Your task to perform on an android device: Search for flights from NYC to Buenos aires Image 0: 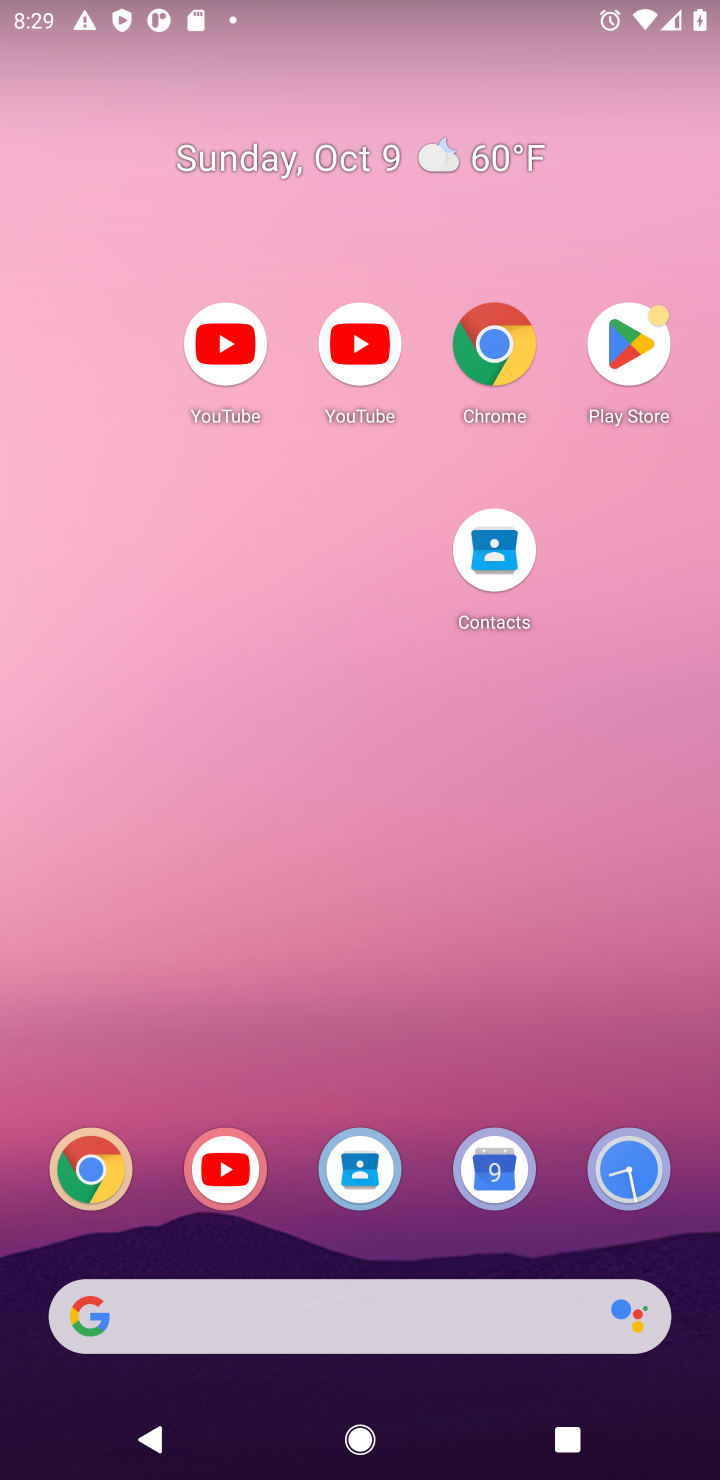
Step 0: drag from (276, 1258) to (297, 280)
Your task to perform on an android device: Search for flights from NYC to Buenos aires Image 1: 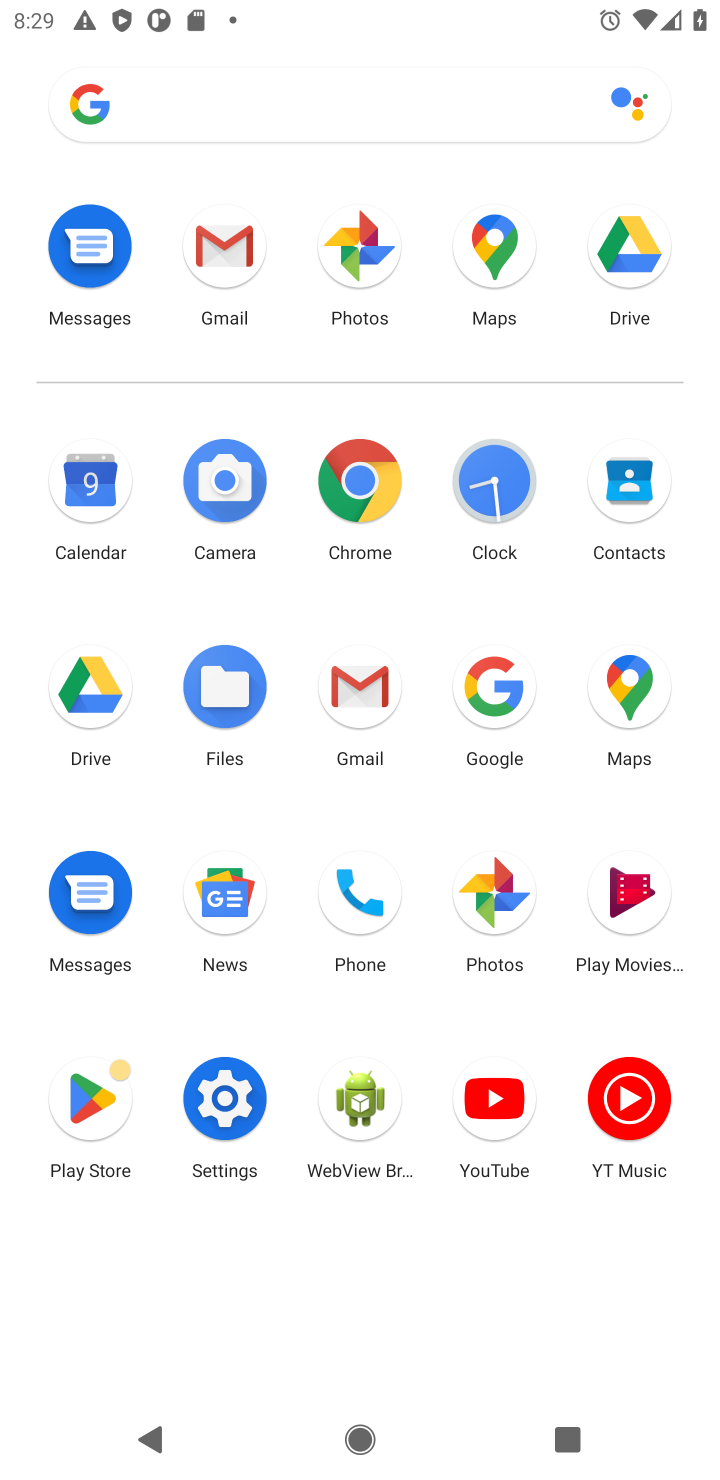
Step 1: click (350, 481)
Your task to perform on an android device: Search for flights from NYC to Buenos aires Image 2: 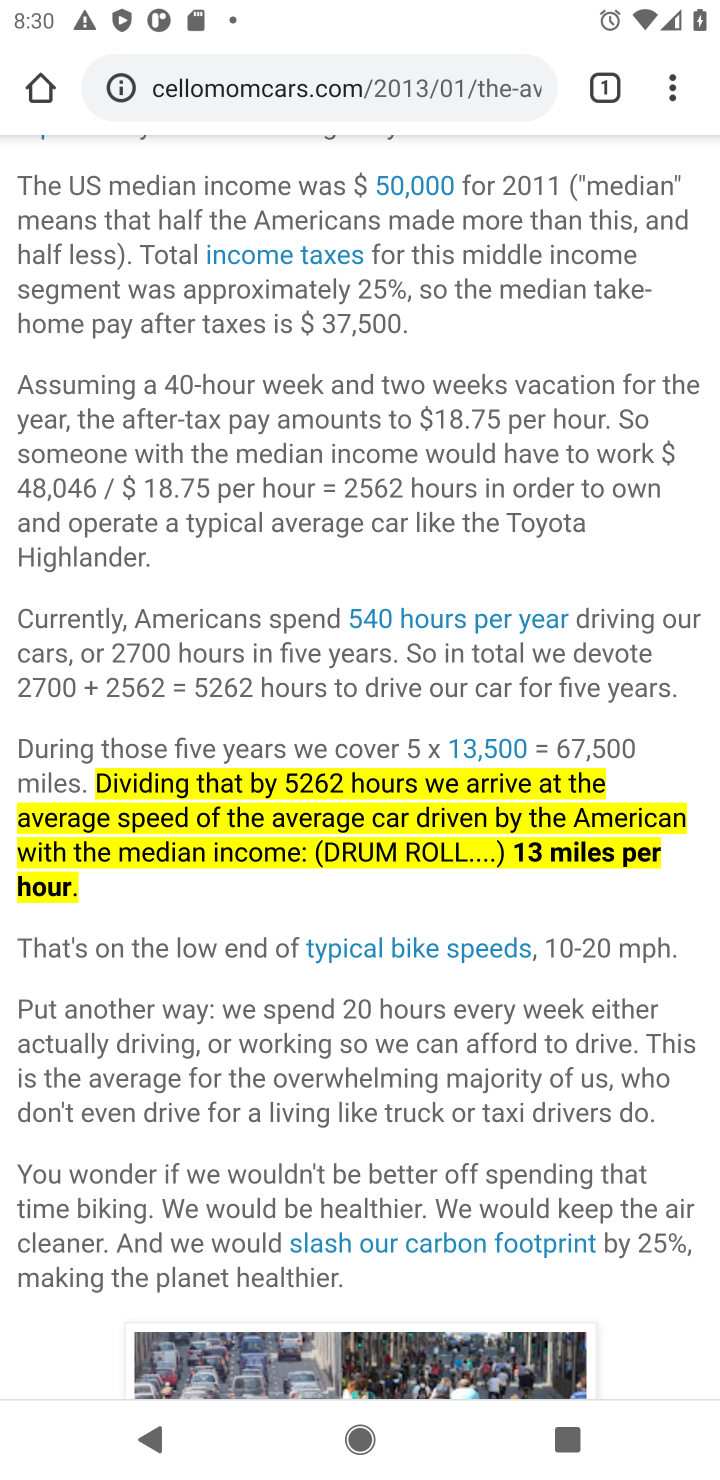
Step 2: click (385, 86)
Your task to perform on an android device: Search for flights from NYC to Buenos aires Image 3: 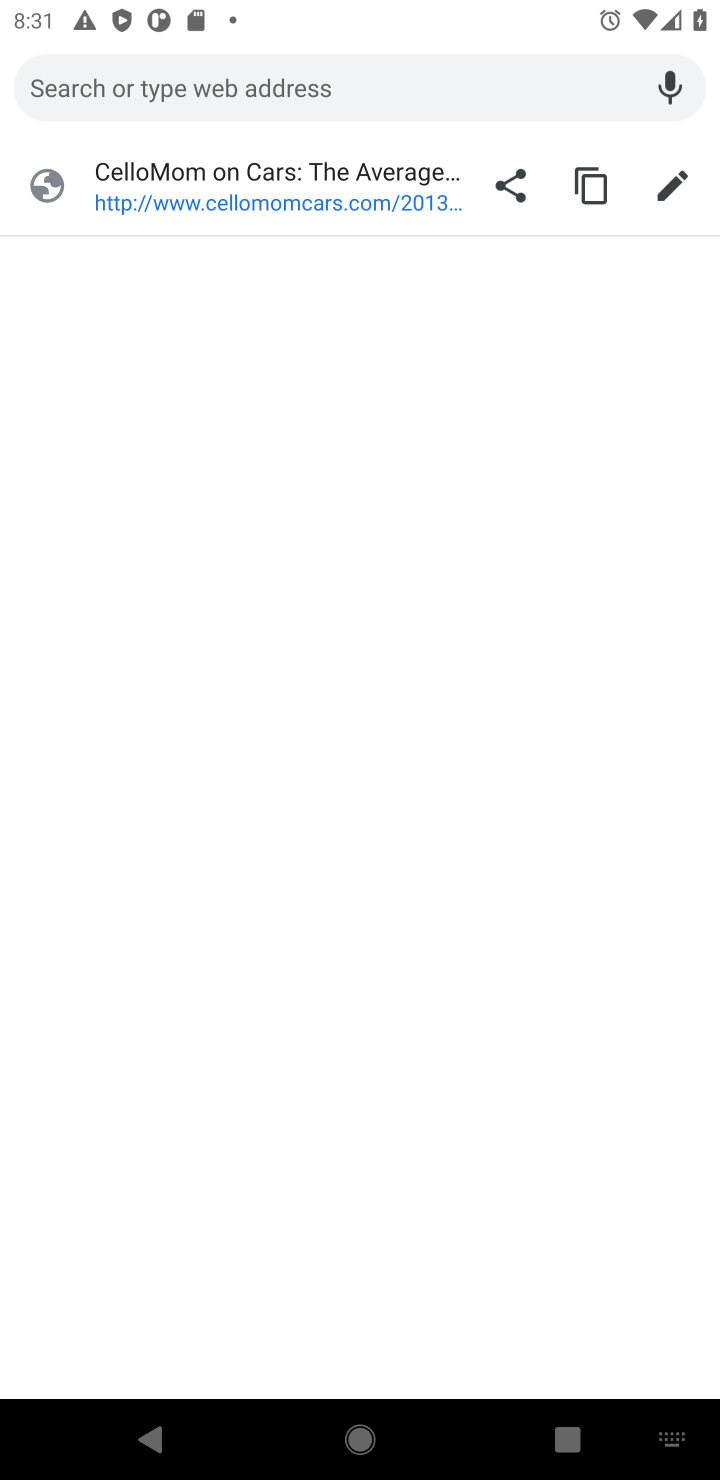
Step 3: type "flights from NYC to Buenos aires"
Your task to perform on an android device: Search for flights from NYC to Buenos aires Image 4: 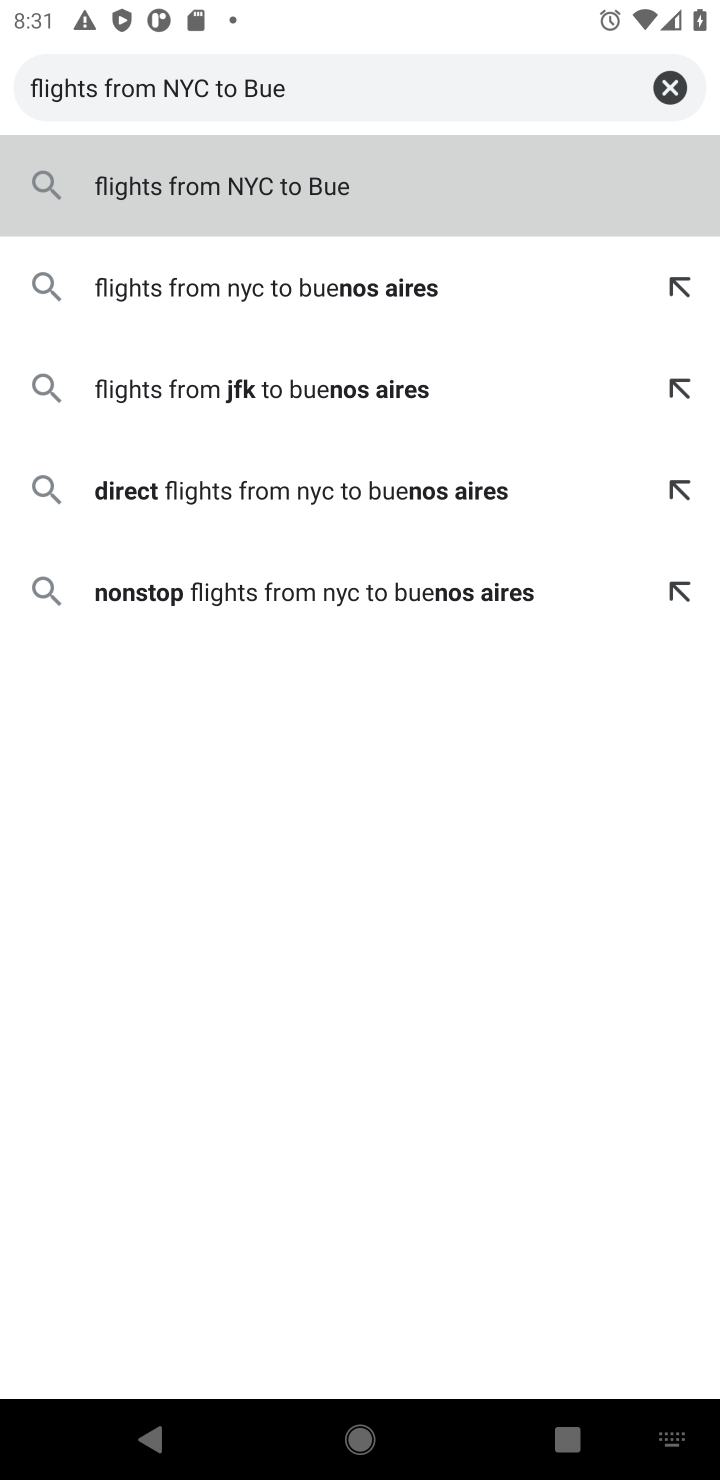
Step 4: type "nos aires"
Your task to perform on an android device: Search for flights from NYC to Buenos aires Image 5: 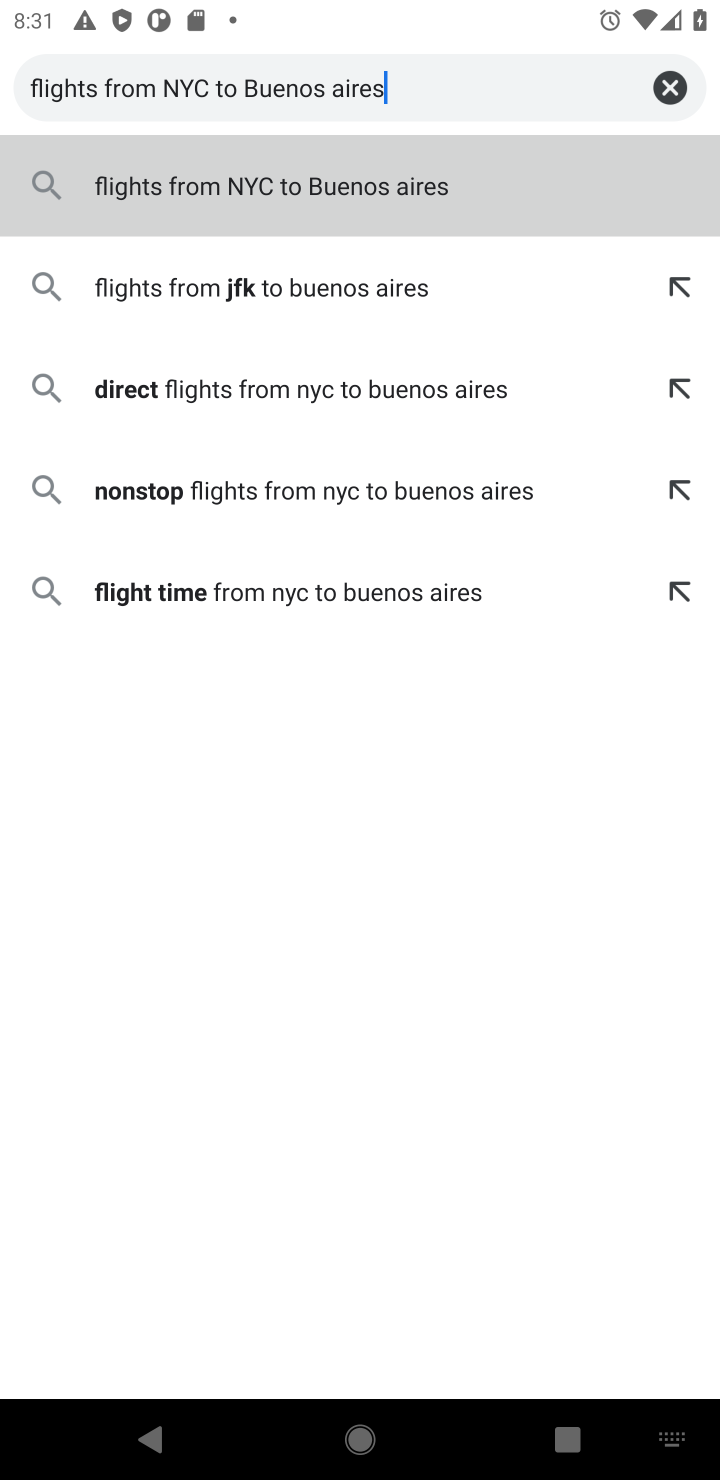
Step 5: press enter
Your task to perform on an android device: Search for flights from NYC to Buenos aires Image 6: 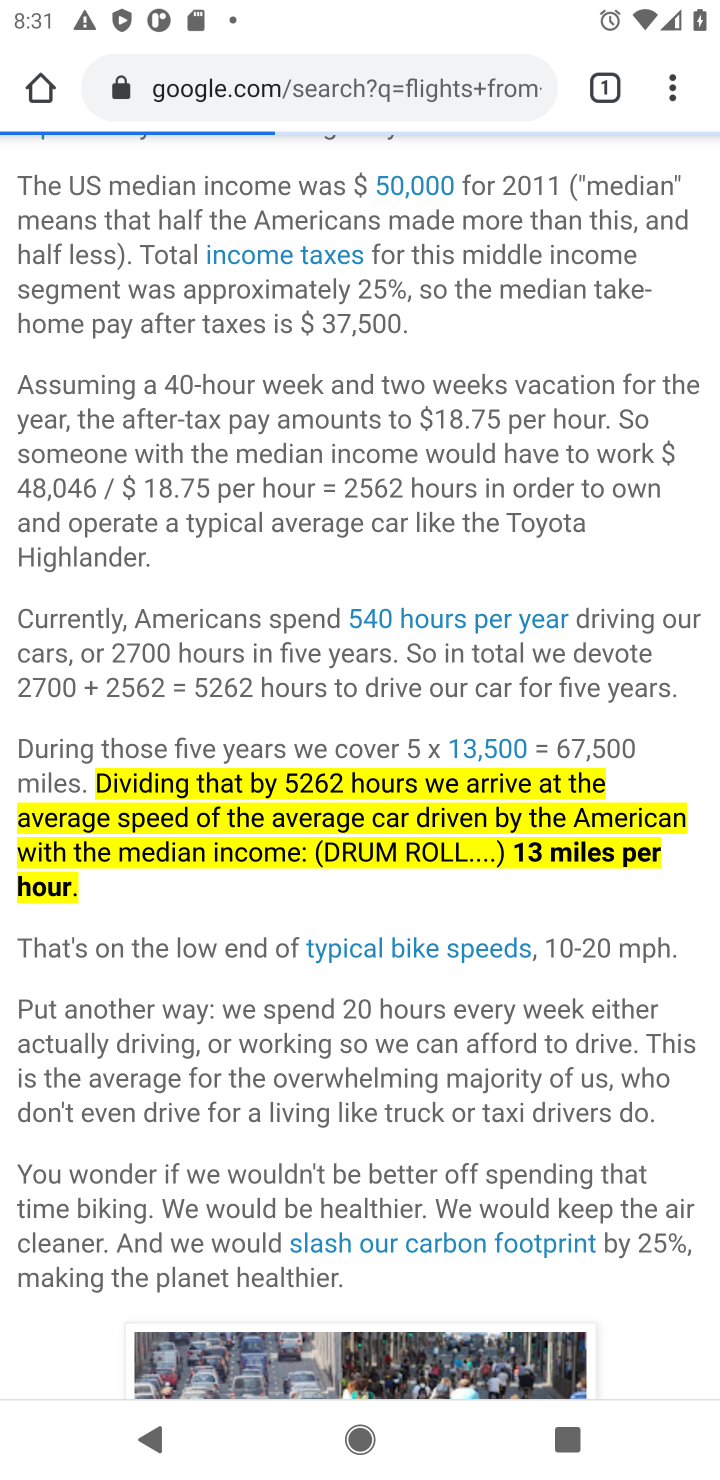
Step 6: press enter
Your task to perform on an android device: Search for flights from NYC to Buenos aires Image 7: 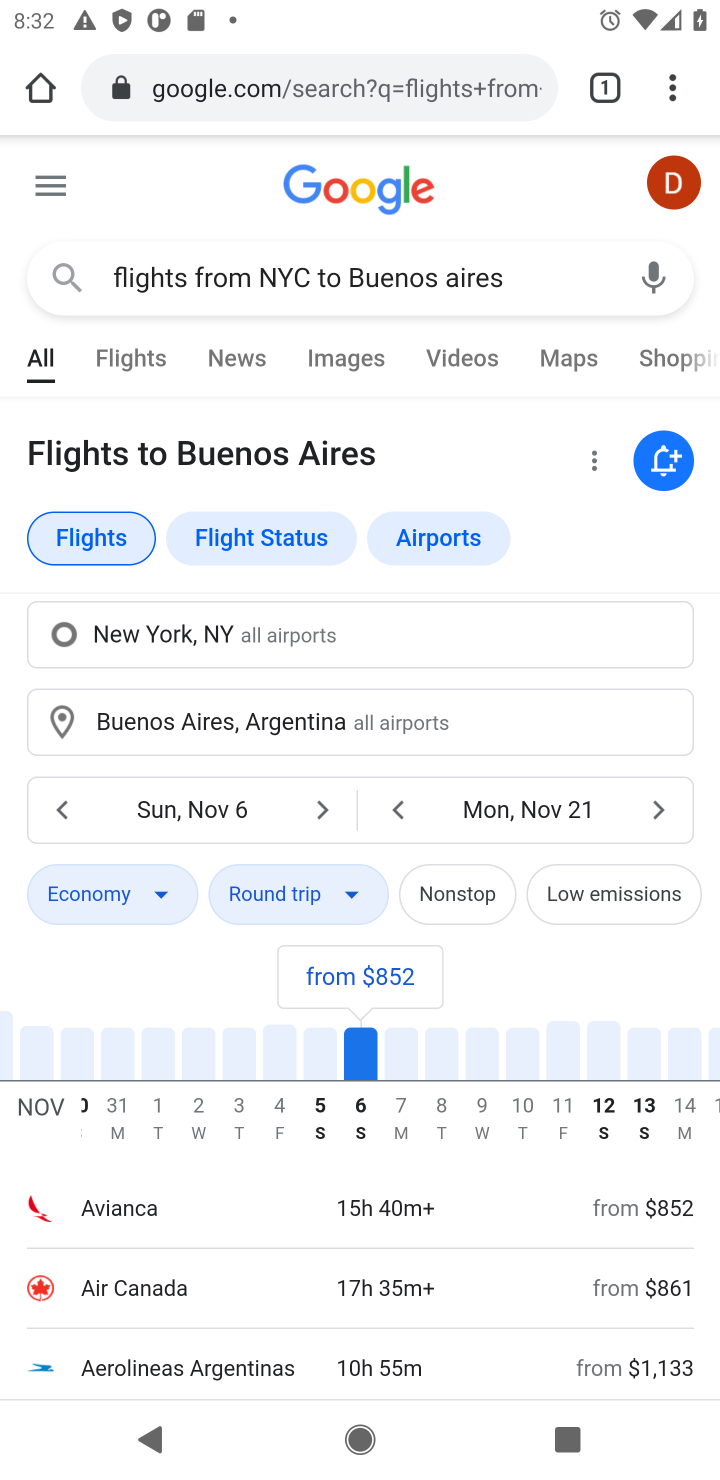
Step 7: task complete